Your task to perform on an android device: Open Wikipedia Image 0: 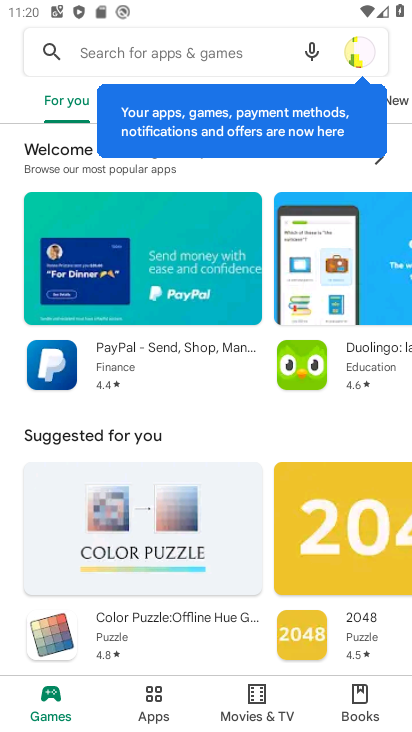
Step 0: press back button
Your task to perform on an android device: Open Wikipedia Image 1: 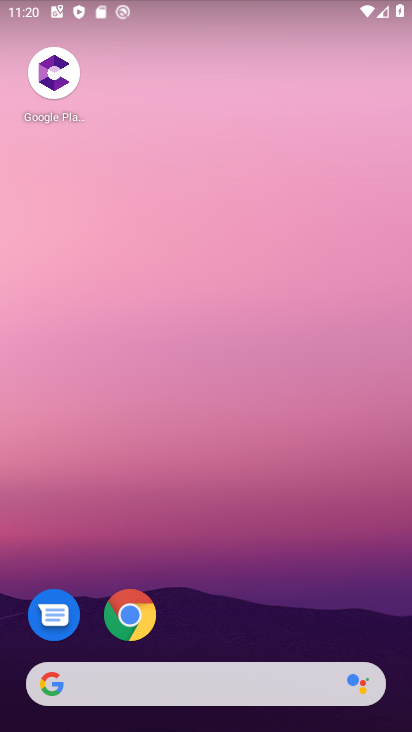
Step 1: click (120, 597)
Your task to perform on an android device: Open Wikipedia Image 2: 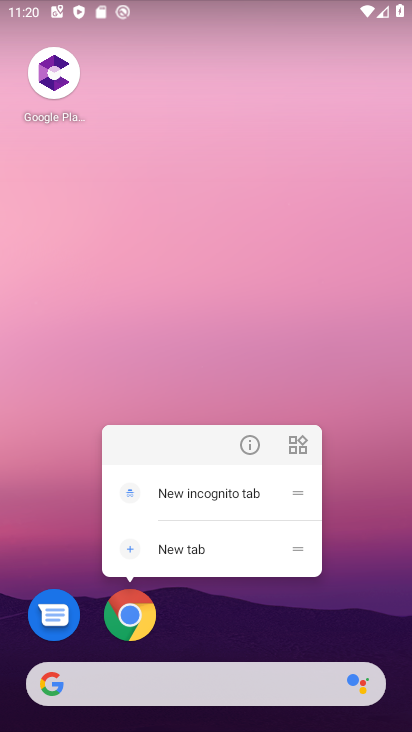
Step 2: click (123, 631)
Your task to perform on an android device: Open Wikipedia Image 3: 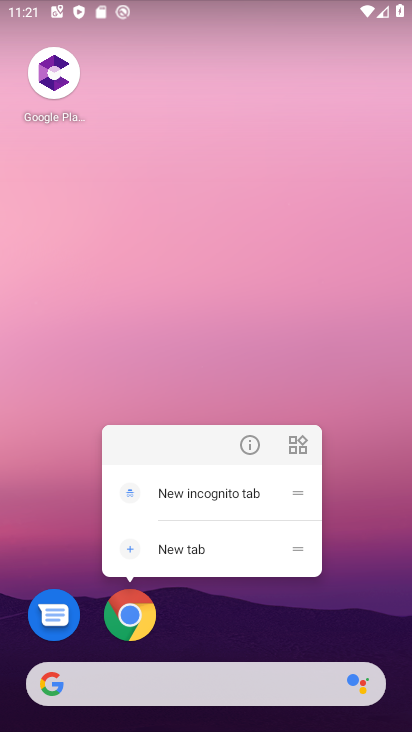
Step 3: click (141, 610)
Your task to perform on an android device: Open Wikipedia Image 4: 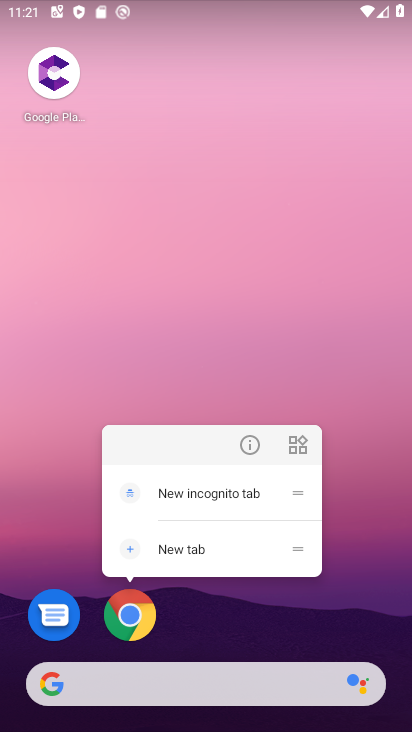
Step 4: click (131, 631)
Your task to perform on an android device: Open Wikipedia Image 5: 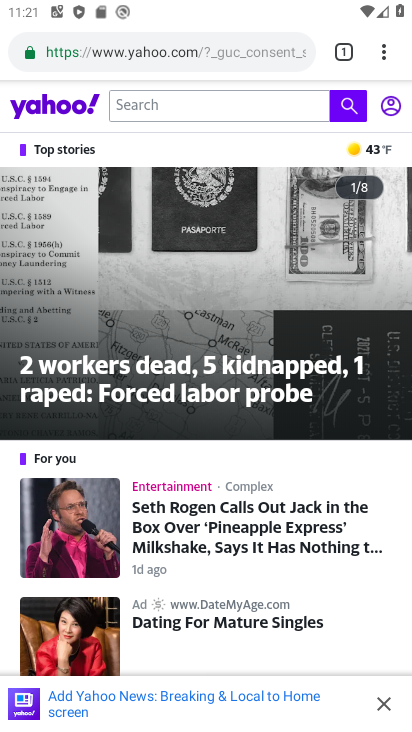
Step 5: click (150, 542)
Your task to perform on an android device: Open Wikipedia Image 6: 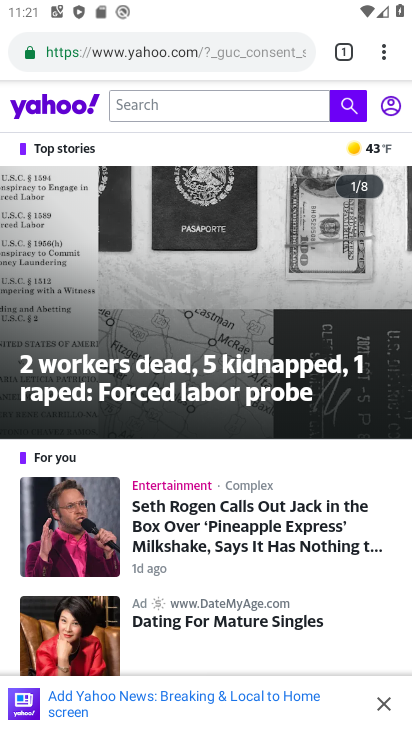
Step 6: click (196, 59)
Your task to perform on an android device: Open Wikipedia Image 7: 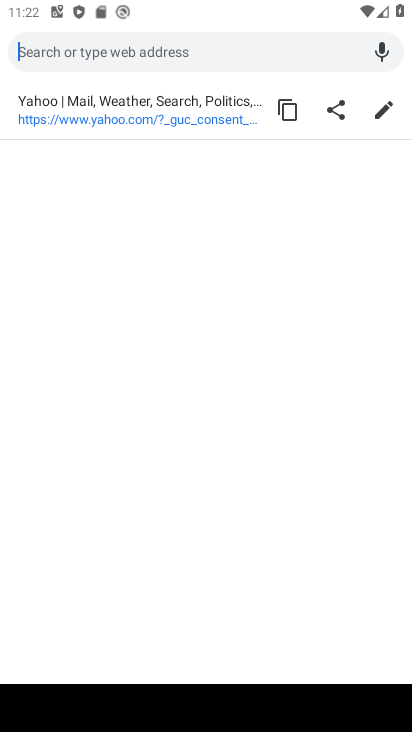
Step 7: type "wikipedia"
Your task to perform on an android device: Open Wikipedia Image 8: 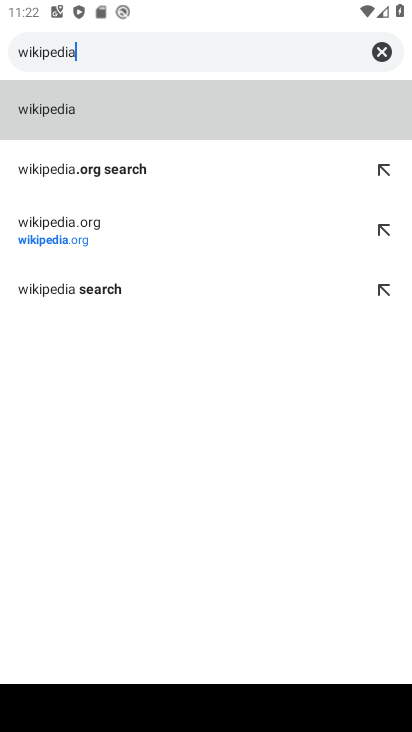
Step 8: click (101, 232)
Your task to perform on an android device: Open Wikipedia Image 9: 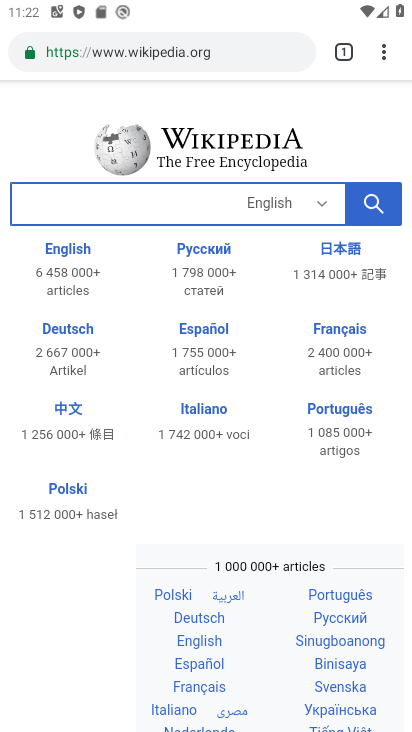
Step 9: task complete